Your task to perform on an android device: turn notification dots off Image 0: 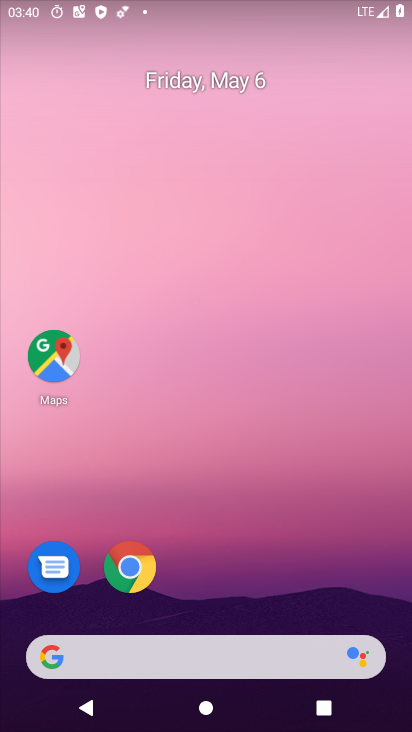
Step 0: drag from (160, 555) to (191, 257)
Your task to perform on an android device: turn notification dots off Image 1: 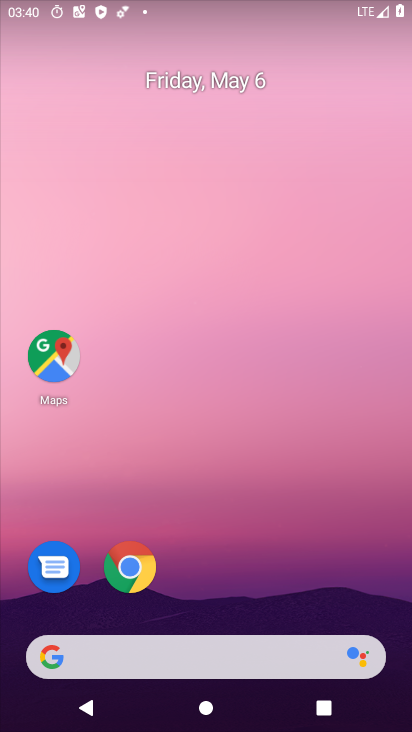
Step 1: drag from (226, 585) to (259, 141)
Your task to perform on an android device: turn notification dots off Image 2: 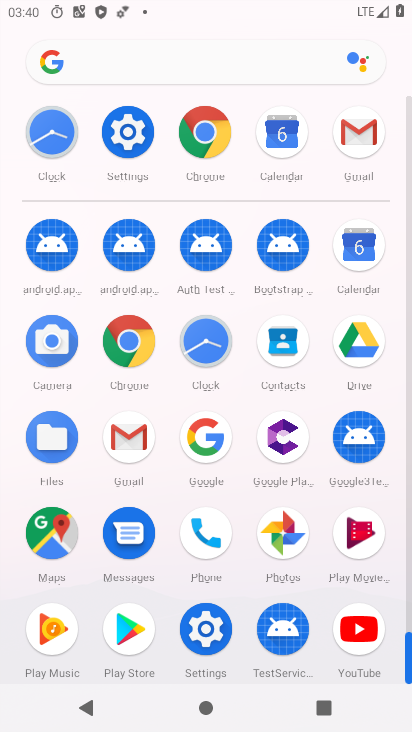
Step 2: click (207, 629)
Your task to perform on an android device: turn notification dots off Image 3: 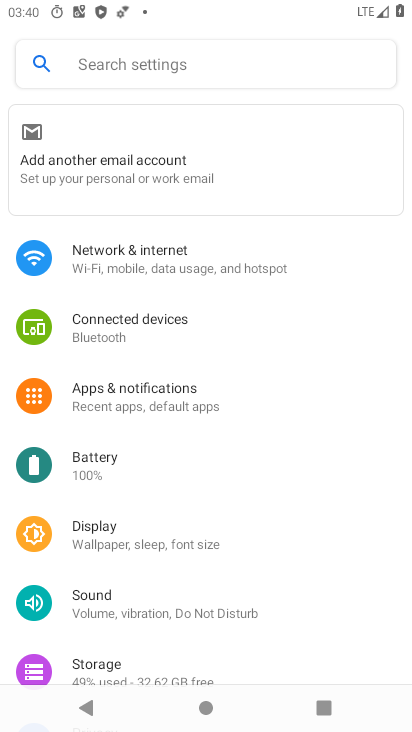
Step 3: click (202, 410)
Your task to perform on an android device: turn notification dots off Image 4: 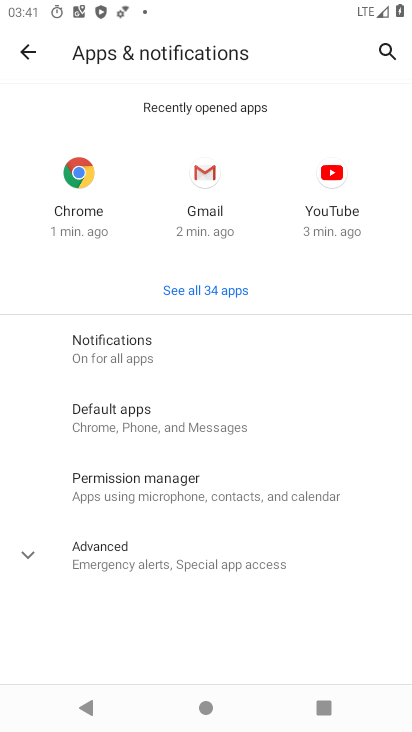
Step 4: click (129, 367)
Your task to perform on an android device: turn notification dots off Image 5: 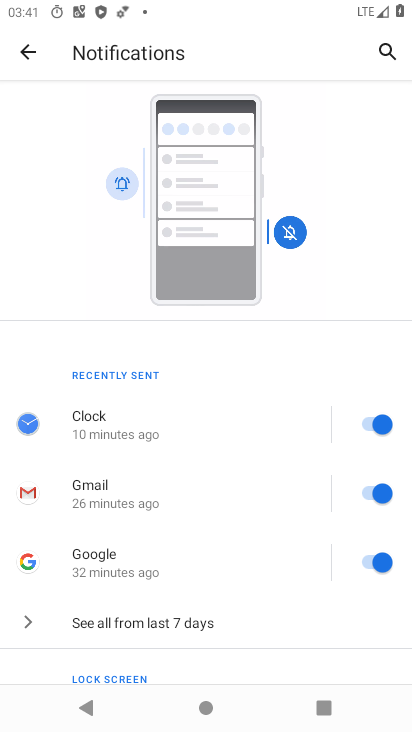
Step 5: drag from (135, 635) to (124, 244)
Your task to perform on an android device: turn notification dots off Image 6: 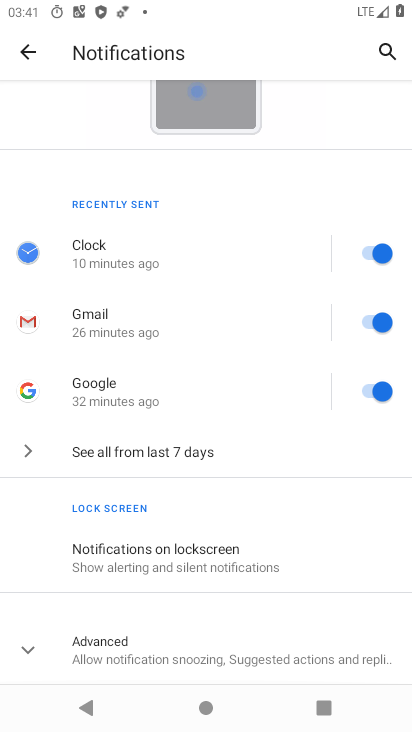
Step 6: drag from (114, 616) to (148, 391)
Your task to perform on an android device: turn notification dots off Image 7: 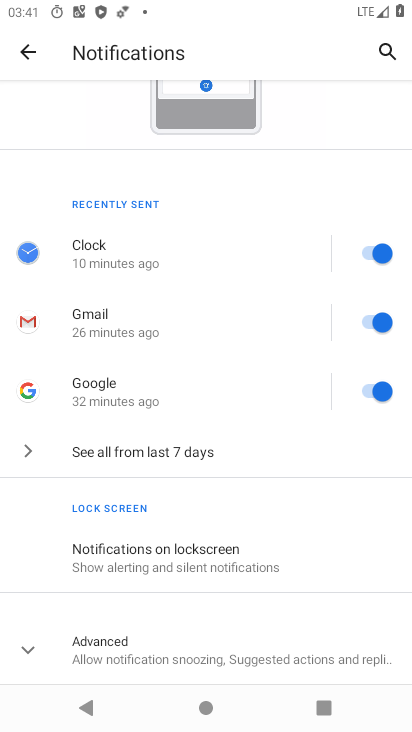
Step 7: click (32, 653)
Your task to perform on an android device: turn notification dots off Image 8: 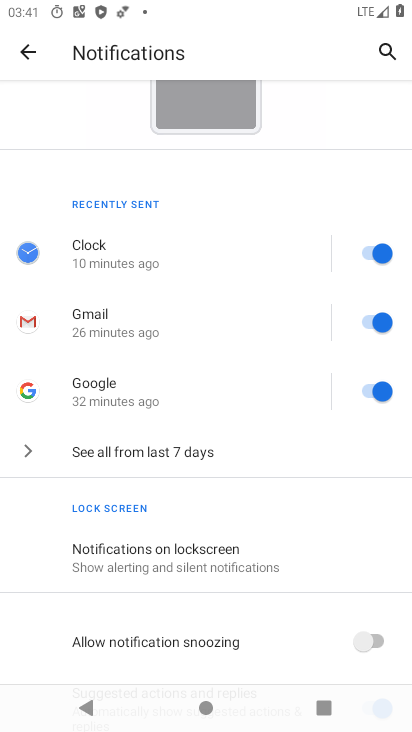
Step 8: task complete